Your task to perform on an android device: Play the last video I watched on Youtube Image 0: 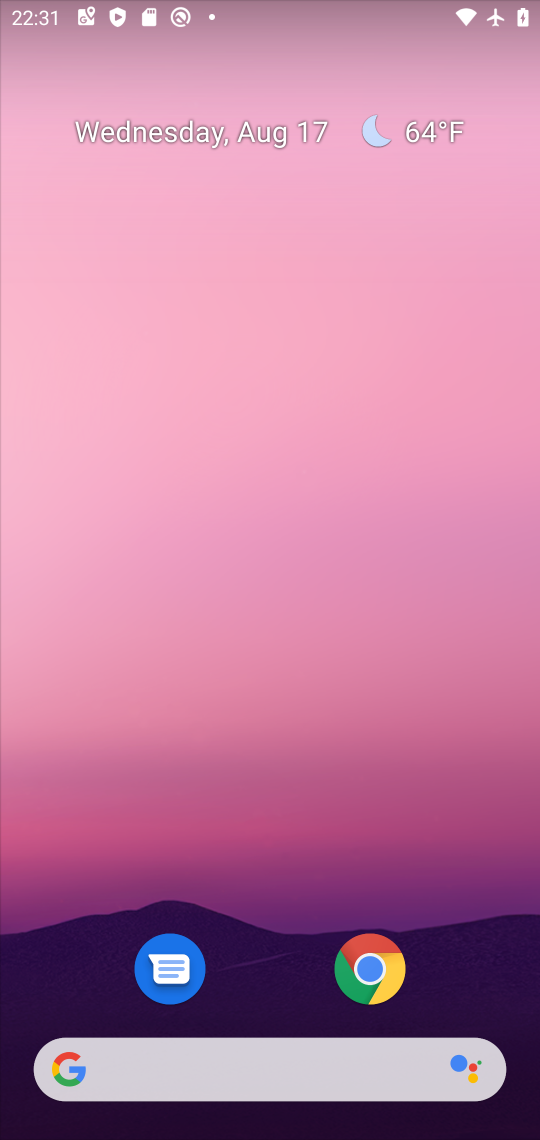
Step 0: drag from (273, 1001) to (284, 166)
Your task to perform on an android device: Play the last video I watched on Youtube Image 1: 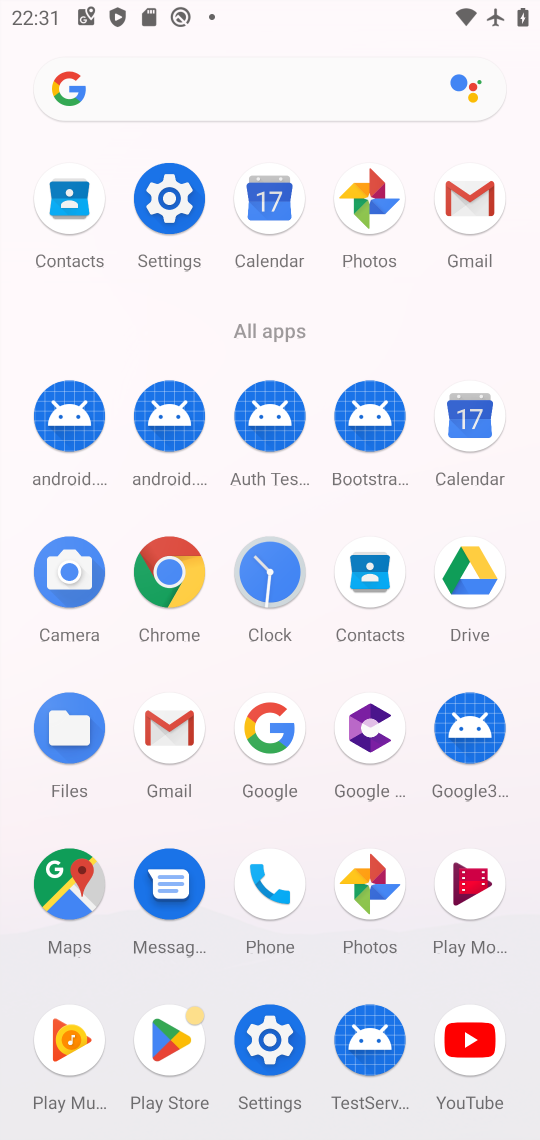
Step 1: click (473, 1042)
Your task to perform on an android device: Play the last video I watched on Youtube Image 2: 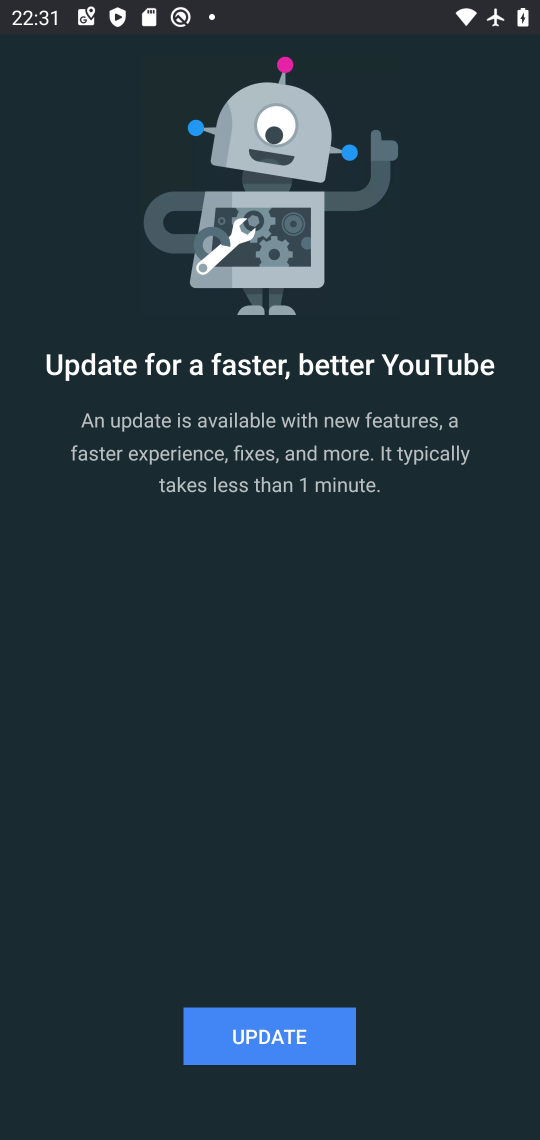
Step 2: click (234, 1033)
Your task to perform on an android device: Play the last video I watched on Youtube Image 3: 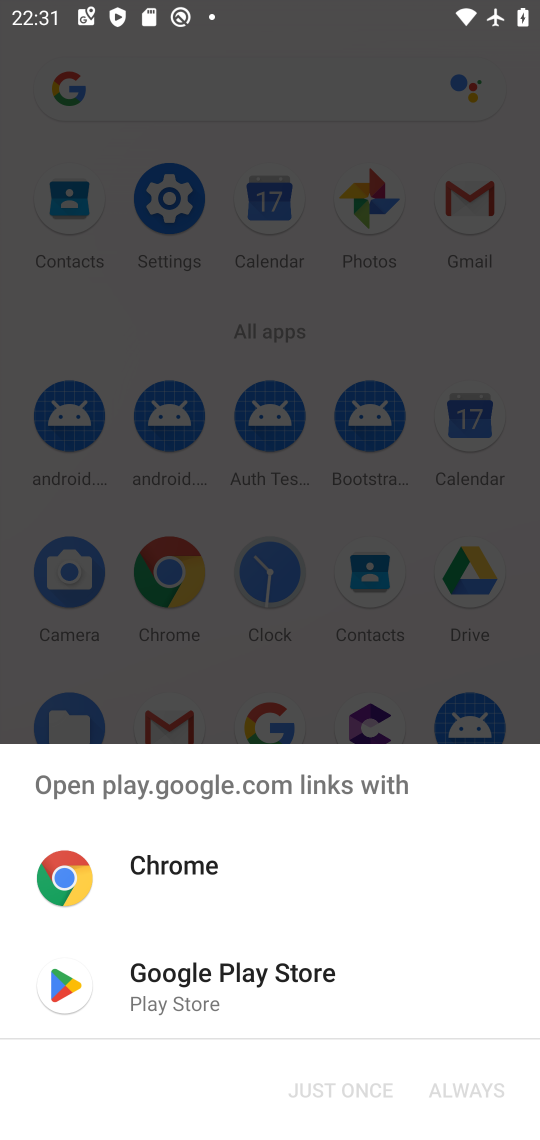
Step 3: click (255, 986)
Your task to perform on an android device: Play the last video I watched on Youtube Image 4: 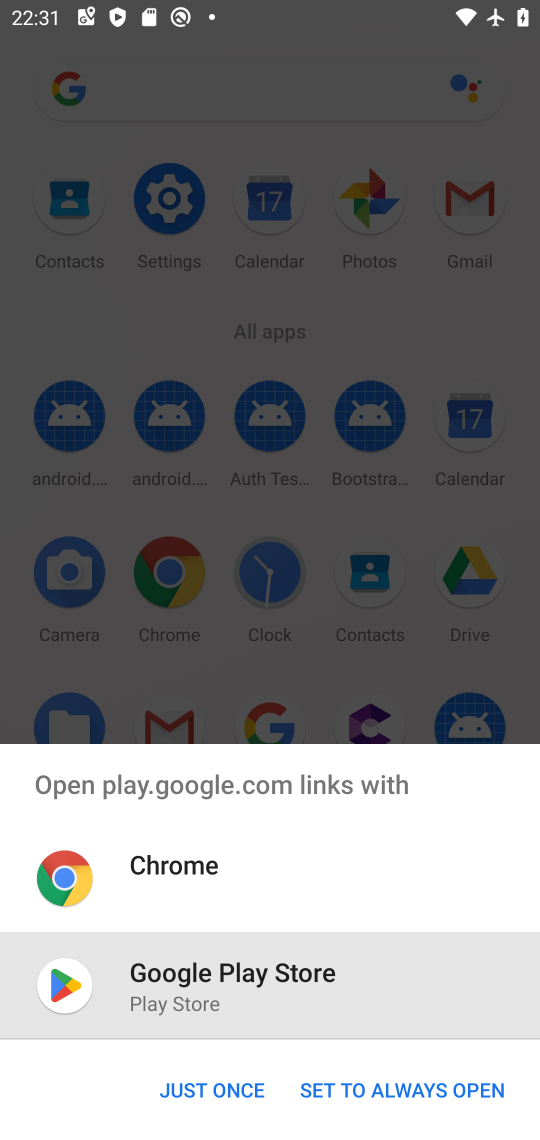
Step 4: click (229, 1082)
Your task to perform on an android device: Play the last video I watched on Youtube Image 5: 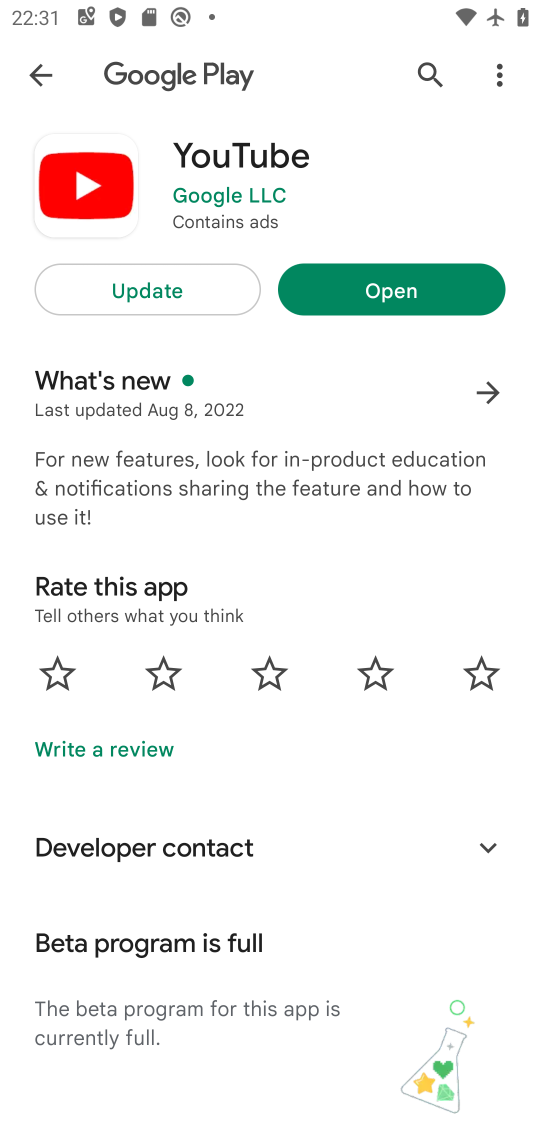
Step 5: click (161, 283)
Your task to perform on an android device: Play the last video I watched on Youtube Image 6: 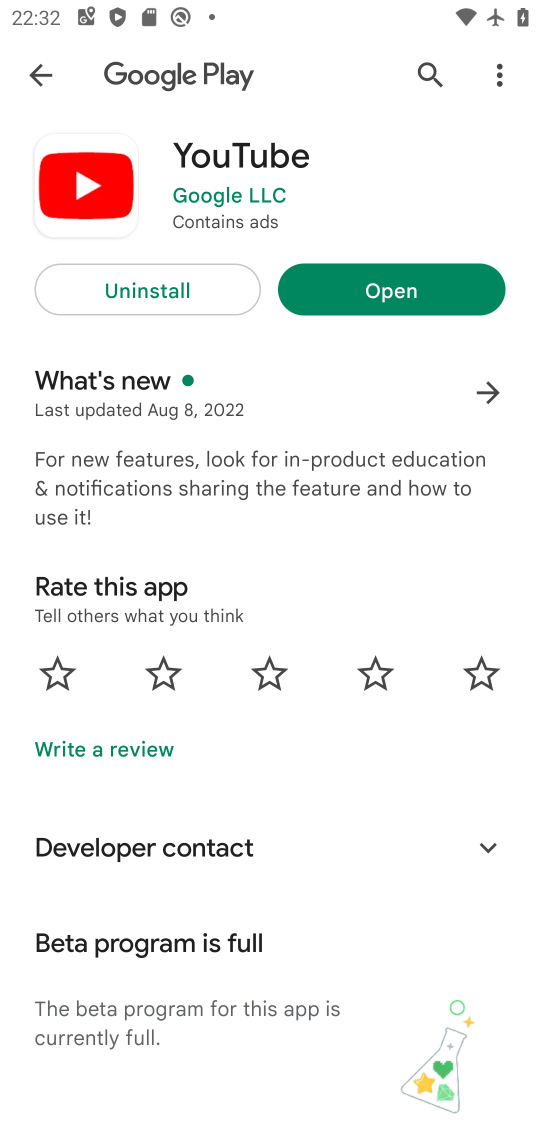
Step 6: click (407, 300)
Your task to perform on an android device: Play the last video I watched on Youtube Image 7: 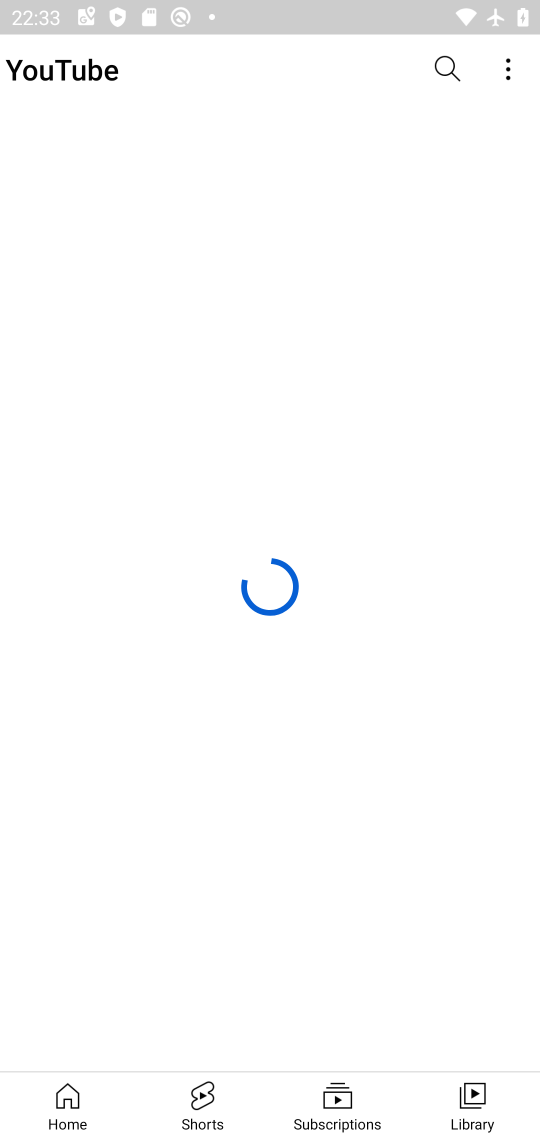
Step 7: click (465, 1108)
Your task to perform on an android device: Play the last video I watched on Youtube Image 8: 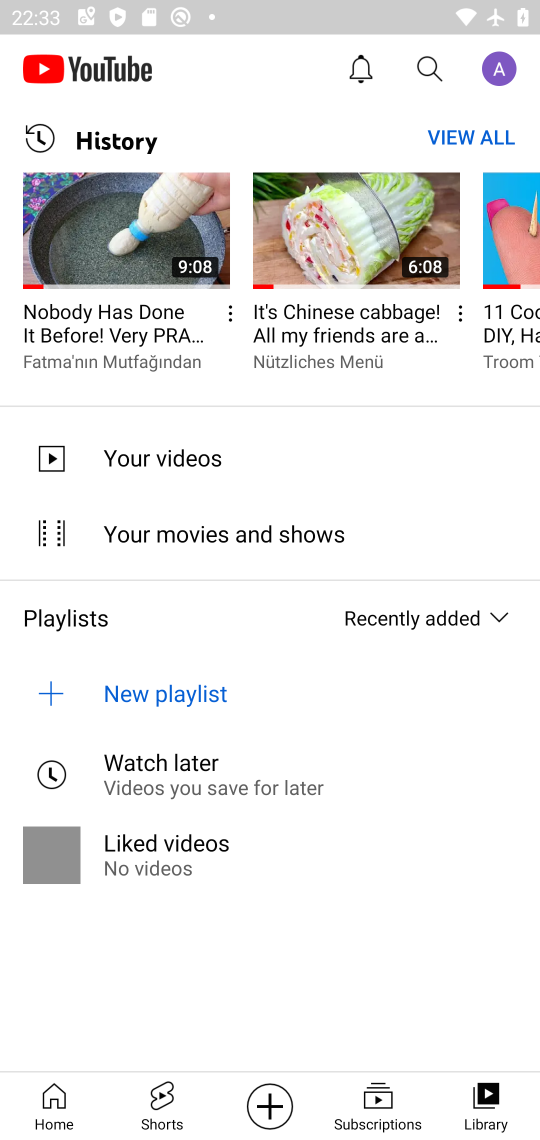
Step 8: click (123, 247)
Your task to perform on an android device: Play the last video I watched on Youtube Image 9: 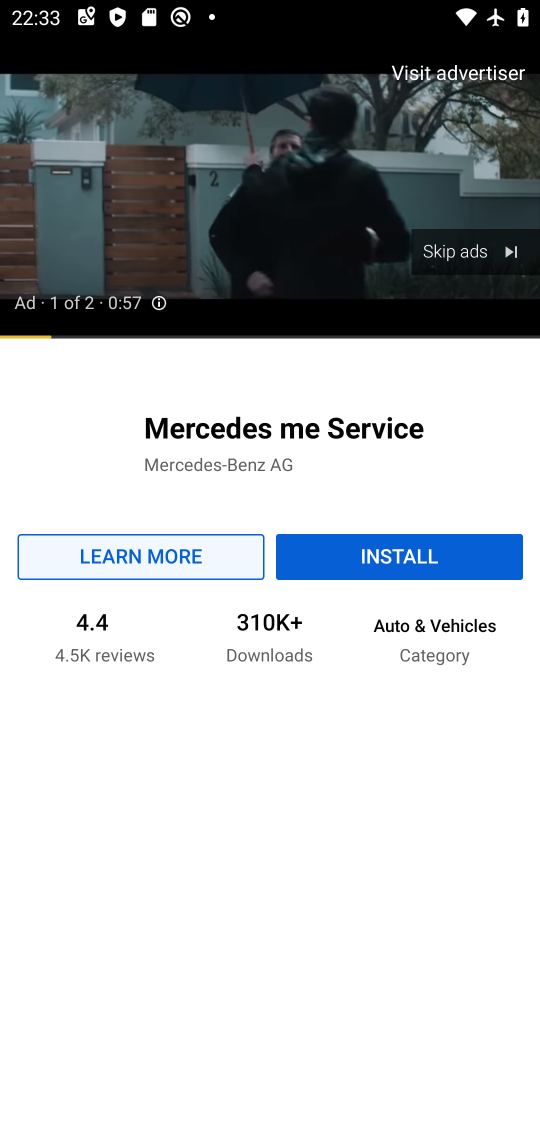
Step 9: task complete